Your task to perform on an android device: turn smart compose on in the gmail app Image 0: 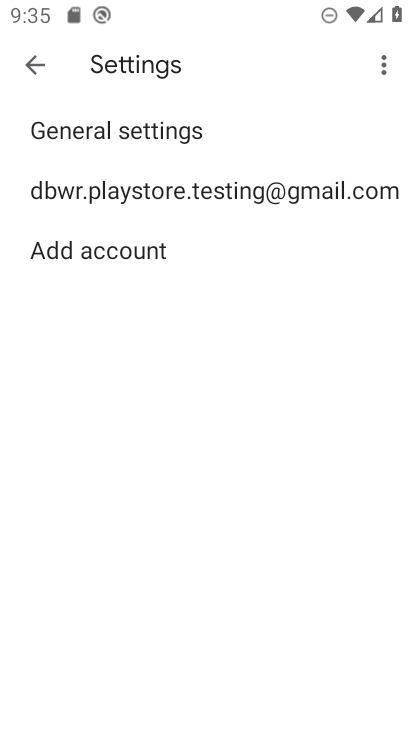
Step 0: click (212, 197)
Your task to perform on an android device: turn smart compose on in the gmail app Image 1: 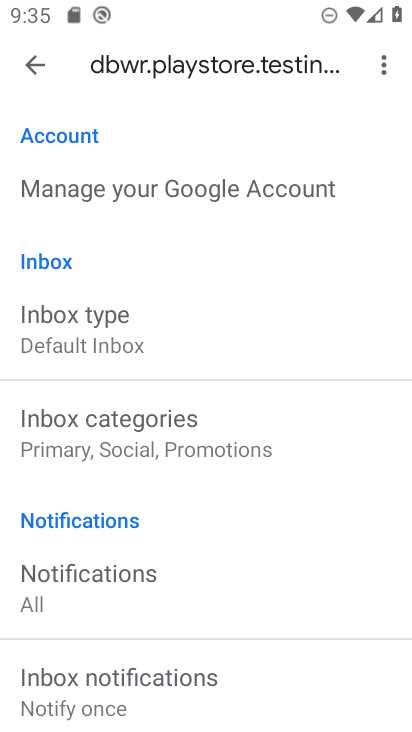
Step 1: task complete